Your task to perform on an android device: empty trash in the gmail app Image 0: 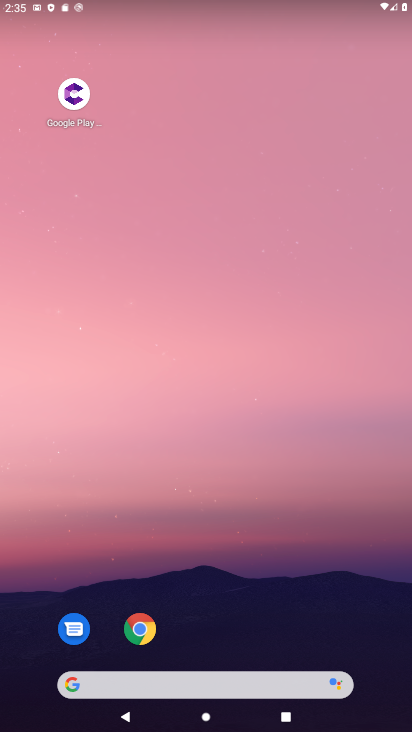
Step 0: drag from (373, 649) to (265, 100)
Your task to perform on an android device: empty trash in the gmail app Image 1: 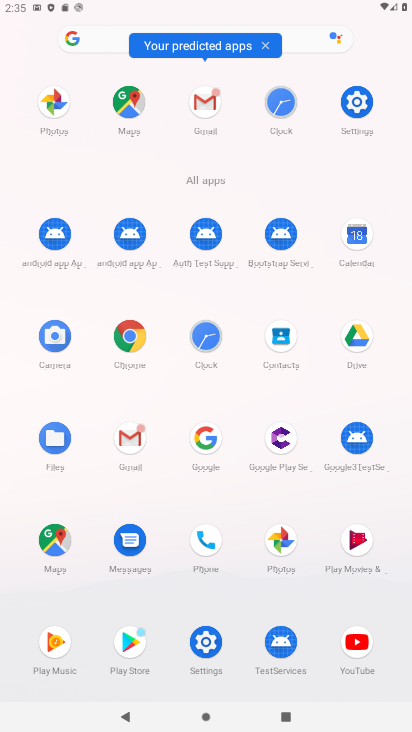
Step 1: click (137, 445)
Your task to perform on an android device: empty trash in the gmail app Image 2: 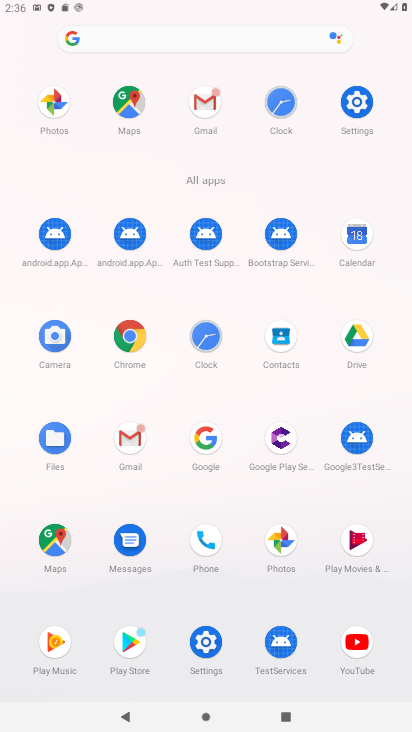
Step 2: click (121, 436)
Your task to perform on an android device: empty trash in the gmail app Image 3: 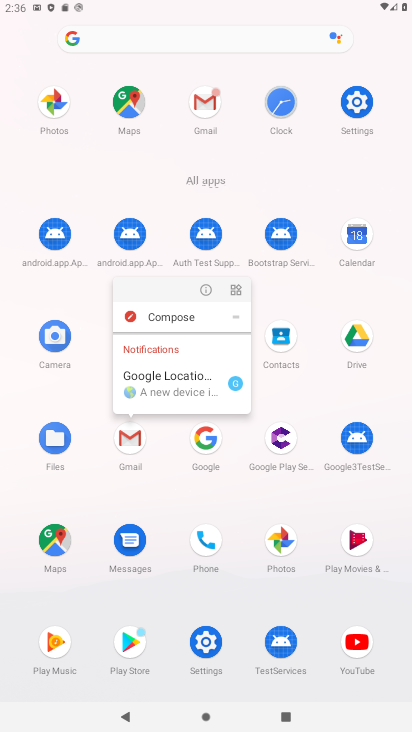
Step 3: click (122, 440)
Your task to perform on an android device: empty trash in the gmail app Image 4: 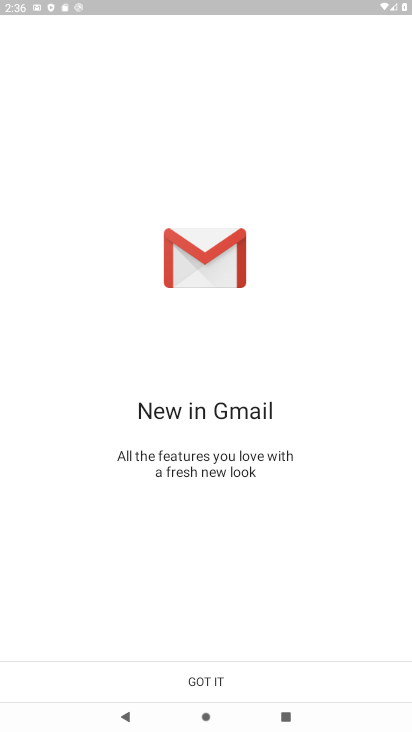
Step 4: click (209, 679)
Your task to perform on an android device: empty trash in the gmail app Image 5: 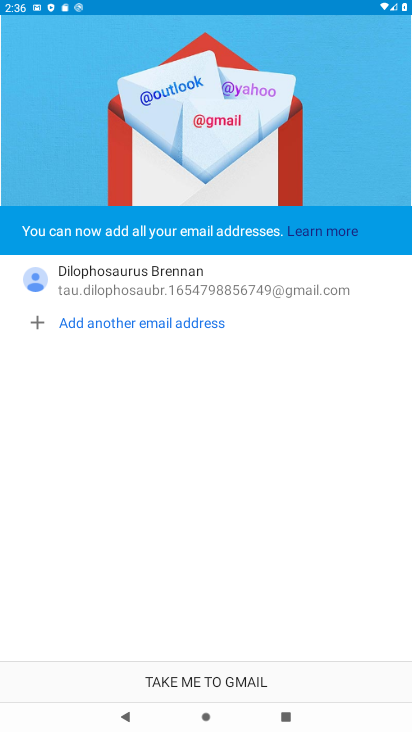
Step 5: click (244, 683)
Your task to perform on an android device: empty trash in the gmail app Image 6: 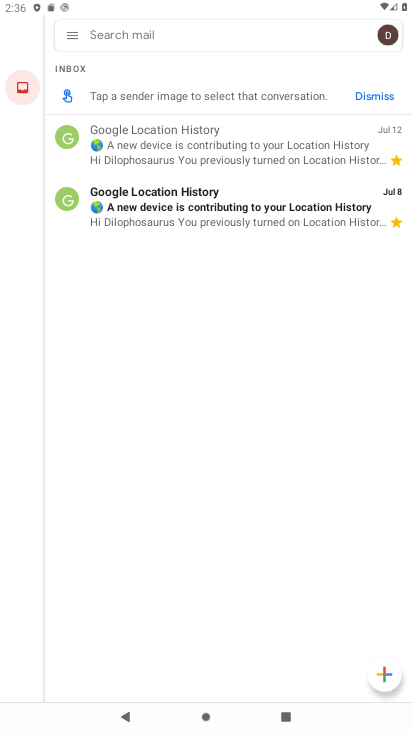
Step 6: click (73, 37)
Your task to perform on an android device: empty trash in the gmail app Image 7: 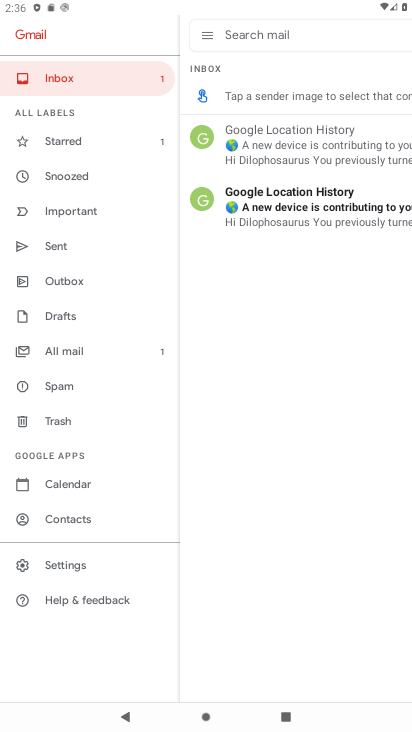
Step 7: click (57, 418)
Your task to perform on an android device: empty trash in the gmail app Image 8: 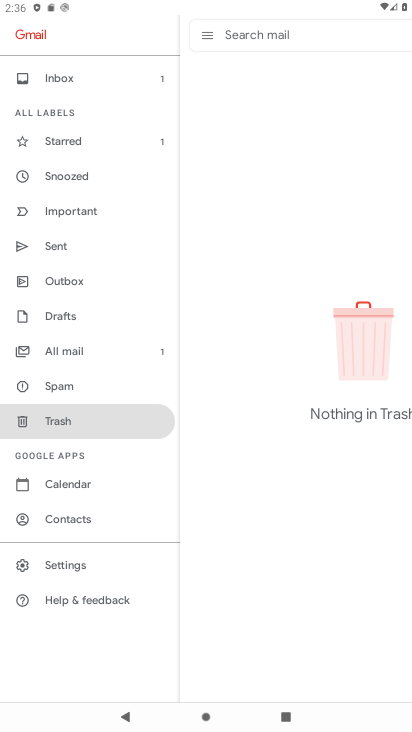
Step 8: task complete